Your task to perform on an android device: Go to Android settings Image 0: 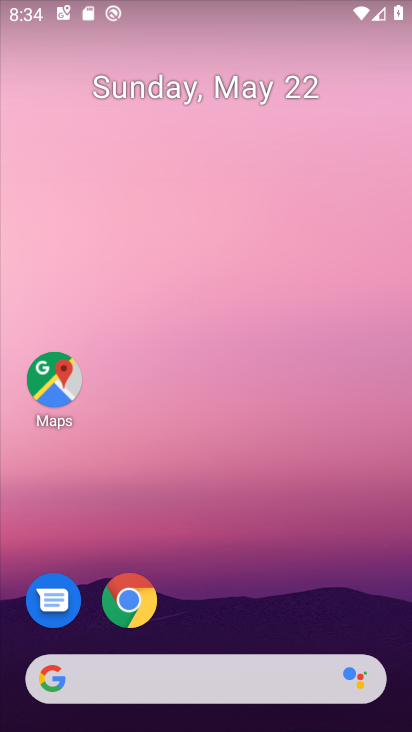
Step 0: drag from (215, 637) to (245, 310)
Your task to perform on an android device: Go to Android settings Image 1: 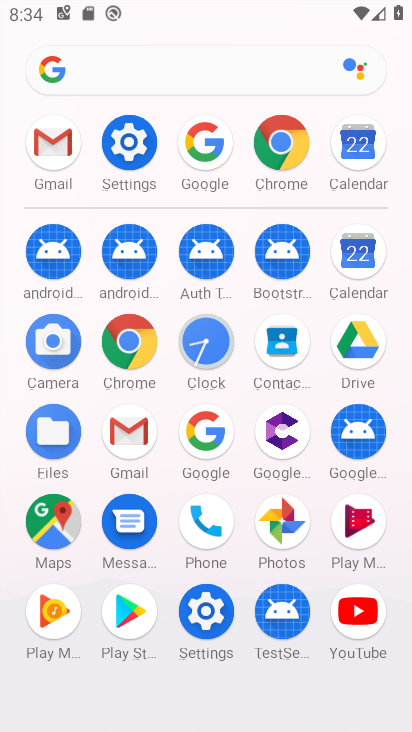
Step 1: click (116, 155)
Your task to perform on an android device: Go to Android settings Image 2: 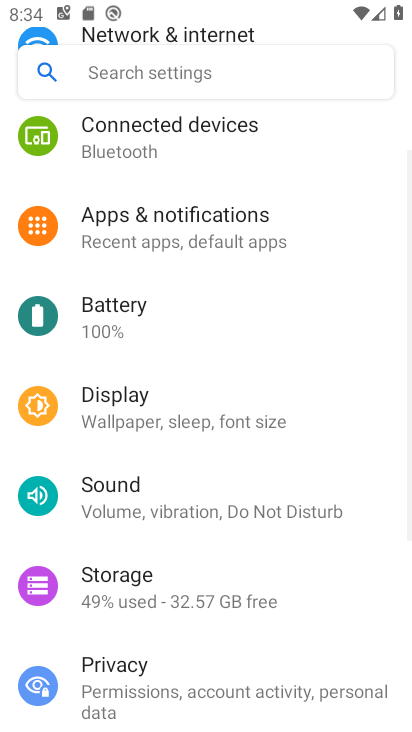
Step 2: task complete